Your task to perform on an android device: Turn off the flashlight Image 0: 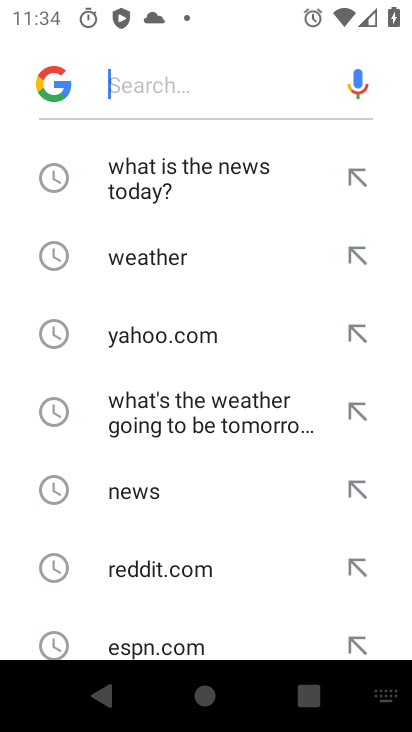
Step 0: press home button
Your task to perform on an android device: Turn off the flashlight Image 1: 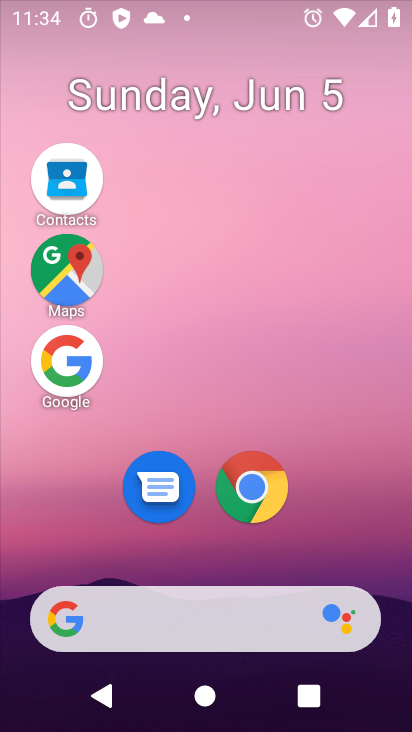
Step 1: task complete